Your task to perform on an android device: open wifi settings Image 0: 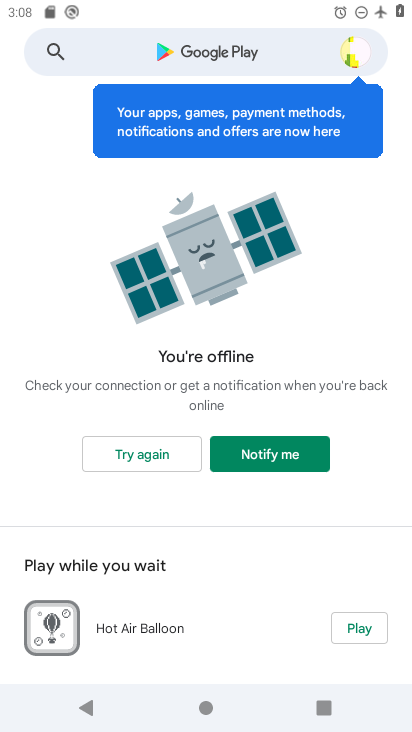
Step 0: press home button
Your task to perform on an android device: open wifi settings Image 1: 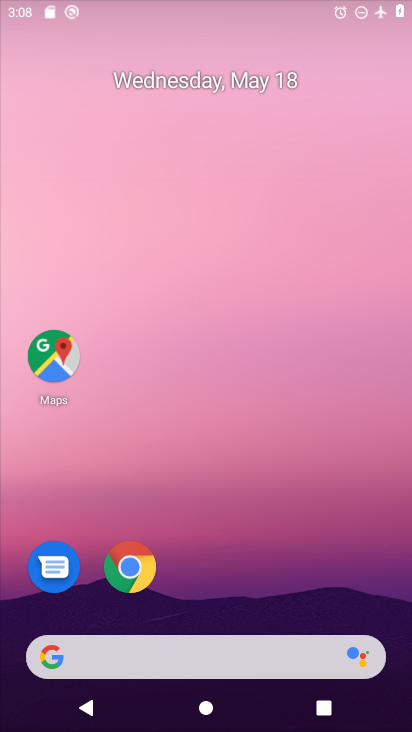
Step 1: drag from (266, 568) to (249, 289)
Your task to perform on an android device: open wifi settings Image 2: 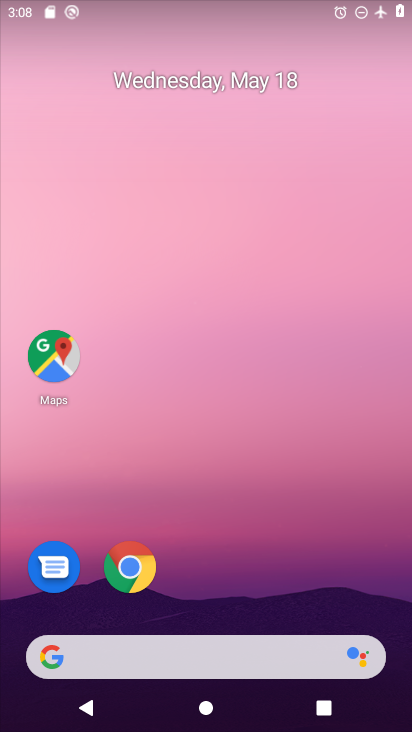
Step 2: drag from (236, 505) to (245, 249)
Your task to perform on an android device: open wifi settings Image 3: 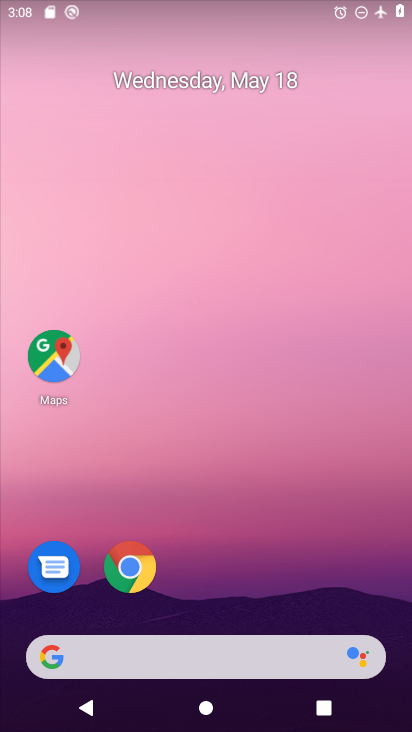
Step 3: drag from (234, 666) to (242, 293)
Your task to perform on an android device: open wifi settings Image 4: 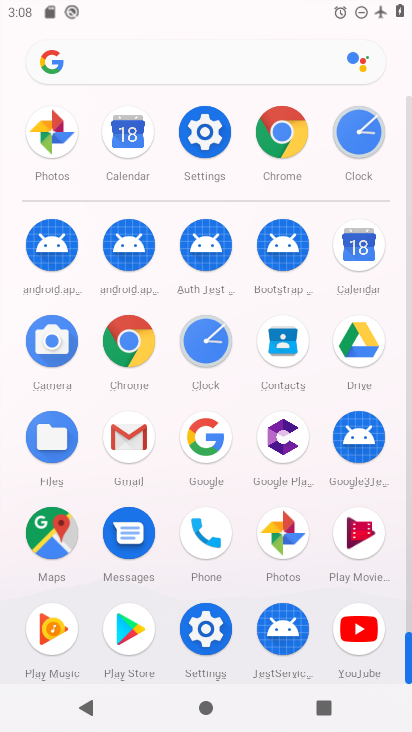
Step 4: click (199, 127)
Your task to perform on an android device: open wifi settings Image 5: 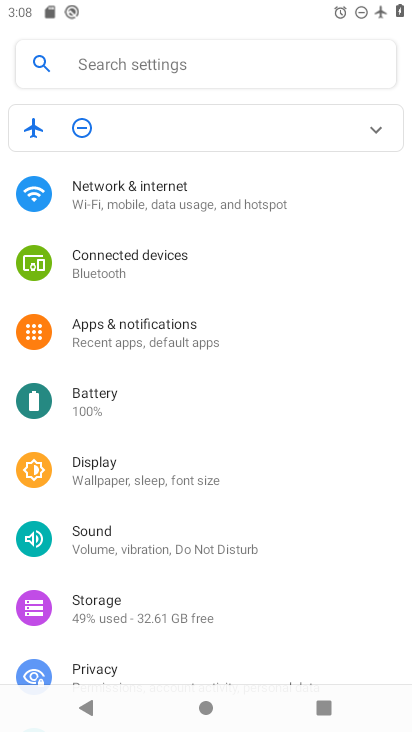
Step 5: click (132, 190)
Your task to perform on an android device: open wifi settings Image 6: 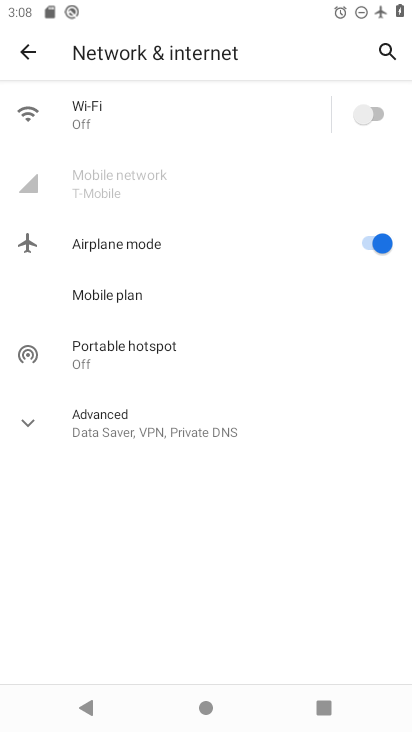
Step 6: click (105, 107)
Your task to perform on an android device: open wifi settings Image 7: 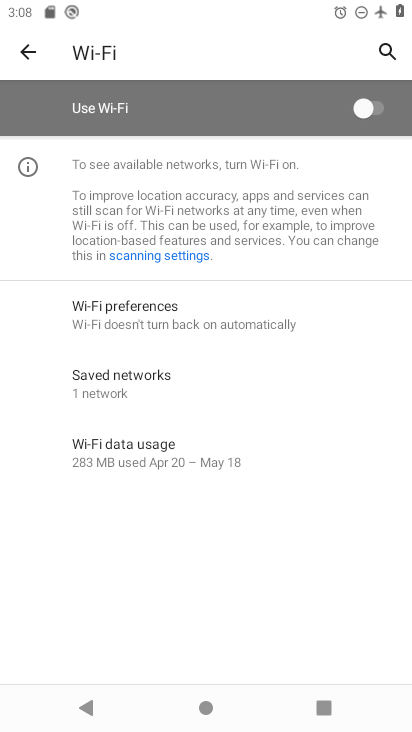
Step 7: click (384, 109)
Your task to perform on an android device: open wifi settings Image 8: 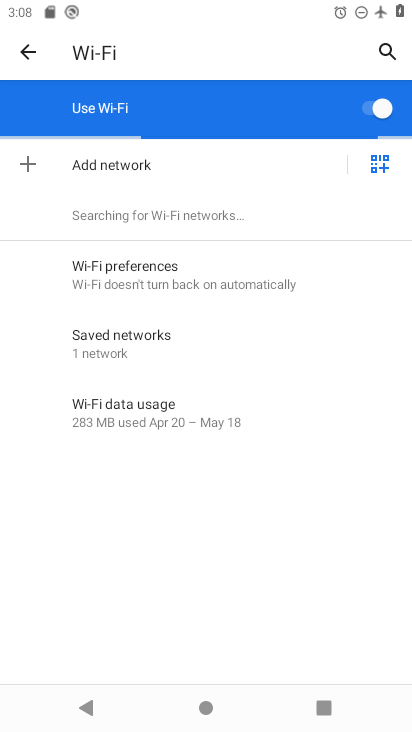
Step 8: task complete